Your task to perform on an android device: Go to accessibility settings Image 0: 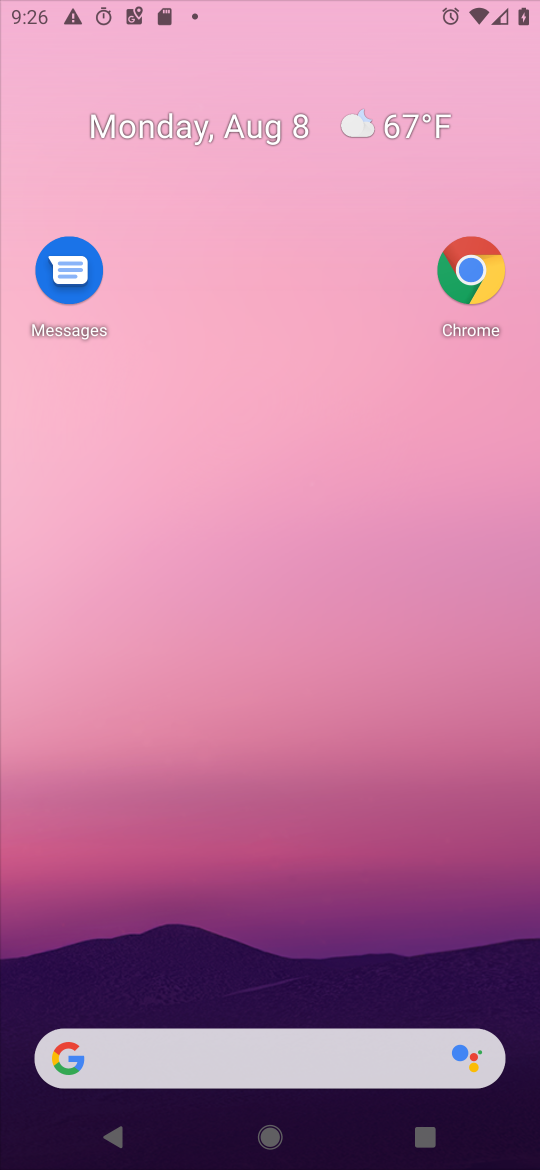
Step 0: drag from (329, 651) to (329, 227)
Your task to perform on an android device: Go to accessibility settings Image 1: 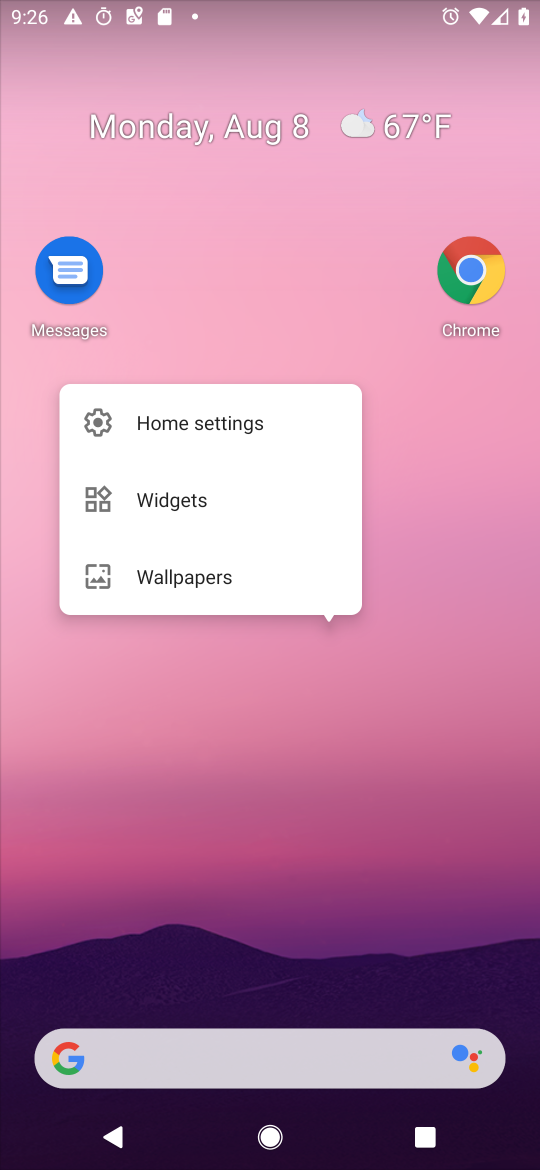
Step 1: drag from (191, 474) to (467, 1165)
Your task to perform on an android device: Go to accessibility settings Image 2: 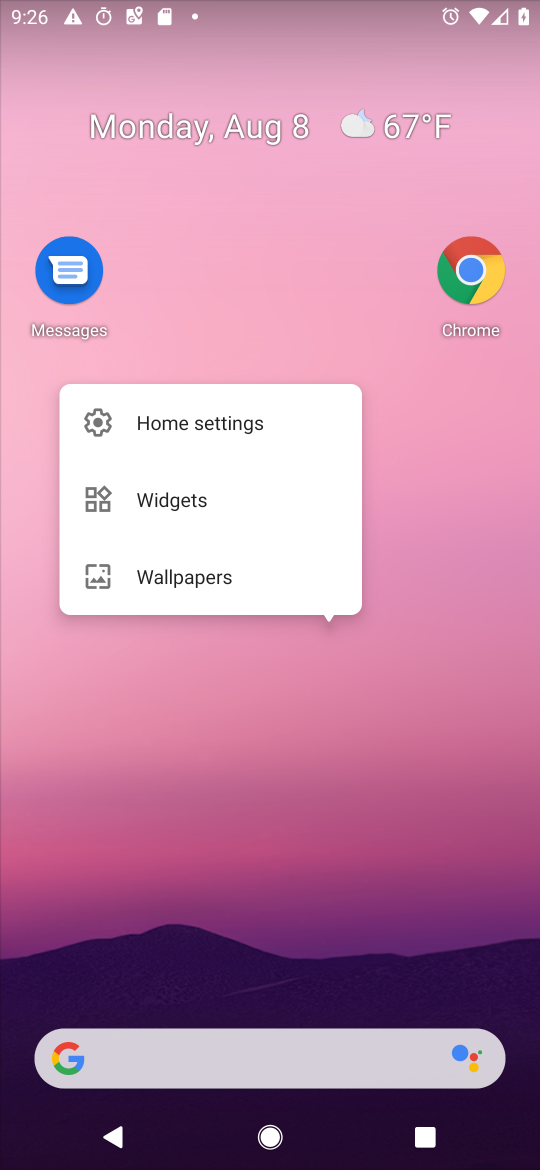
Step 2: drag from (281, 891) to (268, 270)
Your task to perform on an android device: Go to accessibility settings Image 3: 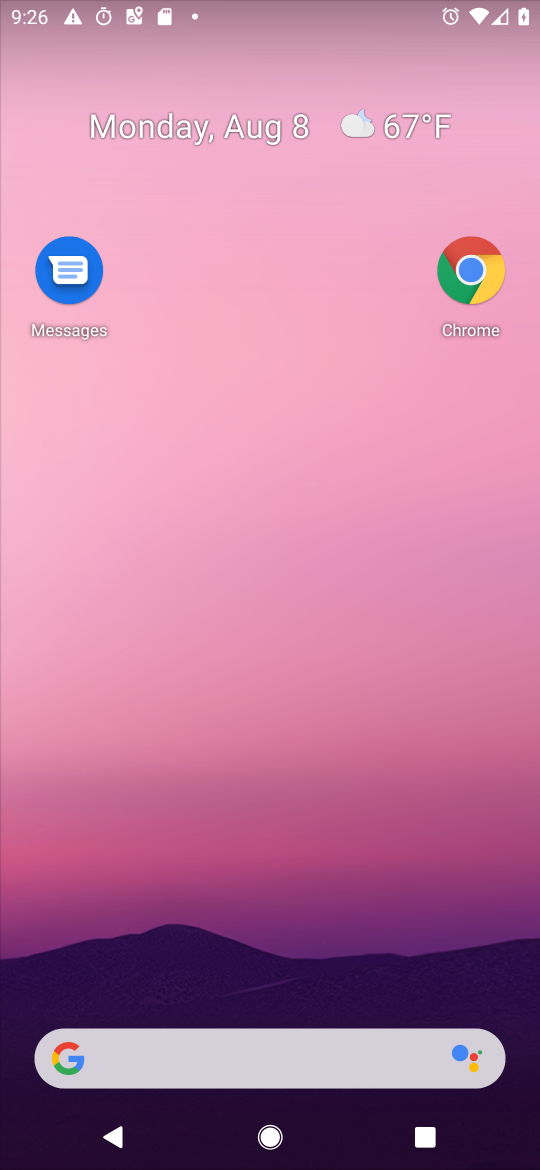
Step 3: drag from (252, 976) to (342, 59)
Your task to perform on an android device: Go to accessibility settings Image 4: 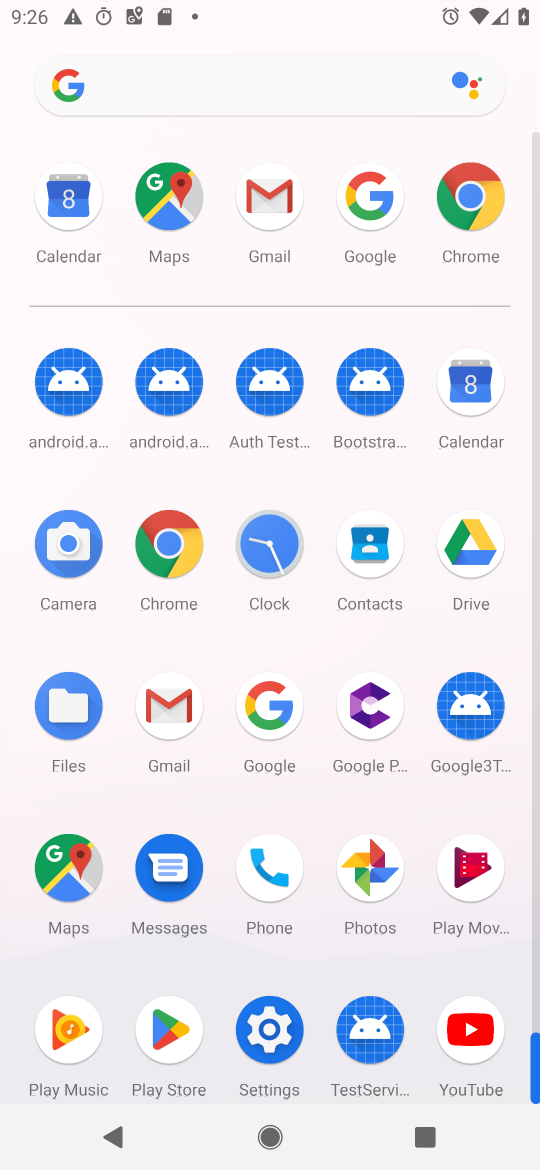
Step 4: drag from (320, 998) to (332, 552)
Your task to perform on an android device: Go to accessibility settings Image 5: 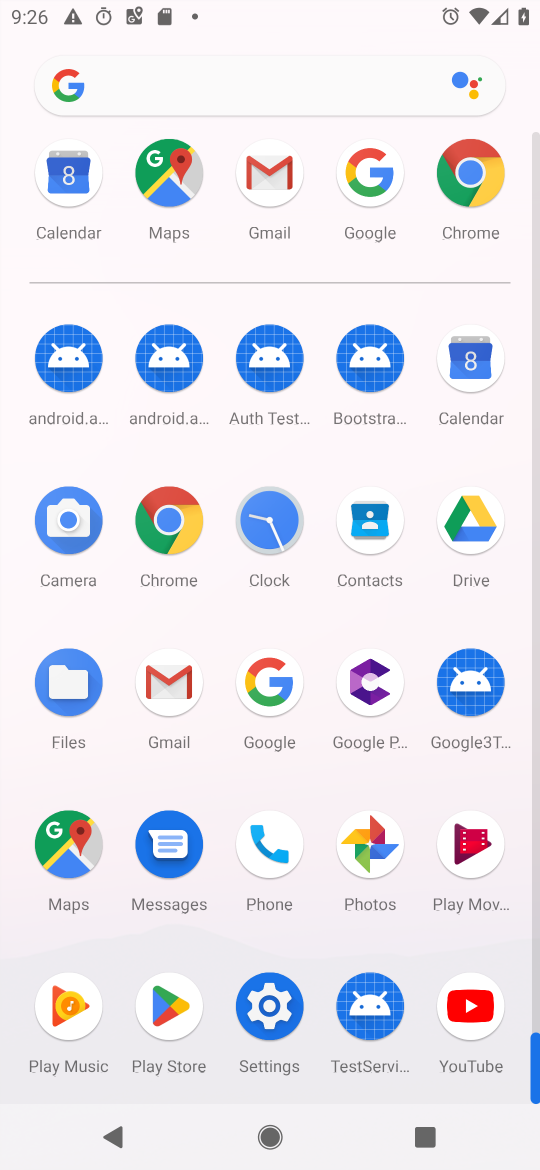
Step 5: click (251, 967)
Your task to perform on an android device: Go to accessibility settings Image 6: 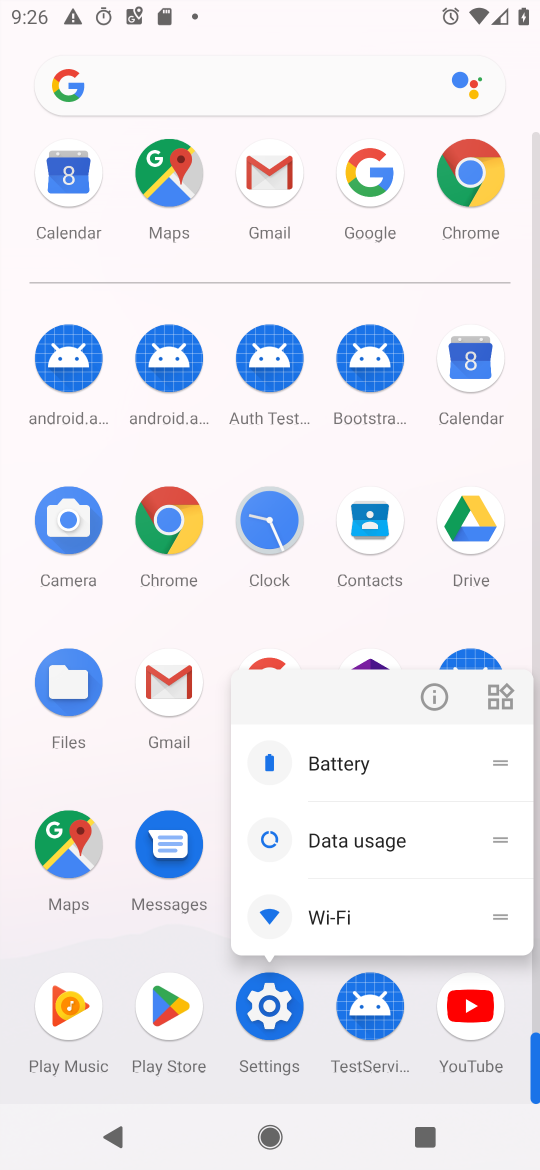
Step 6: click (443, 681)
Your task to perform on an android device: Go to accessibility settings Image 7: 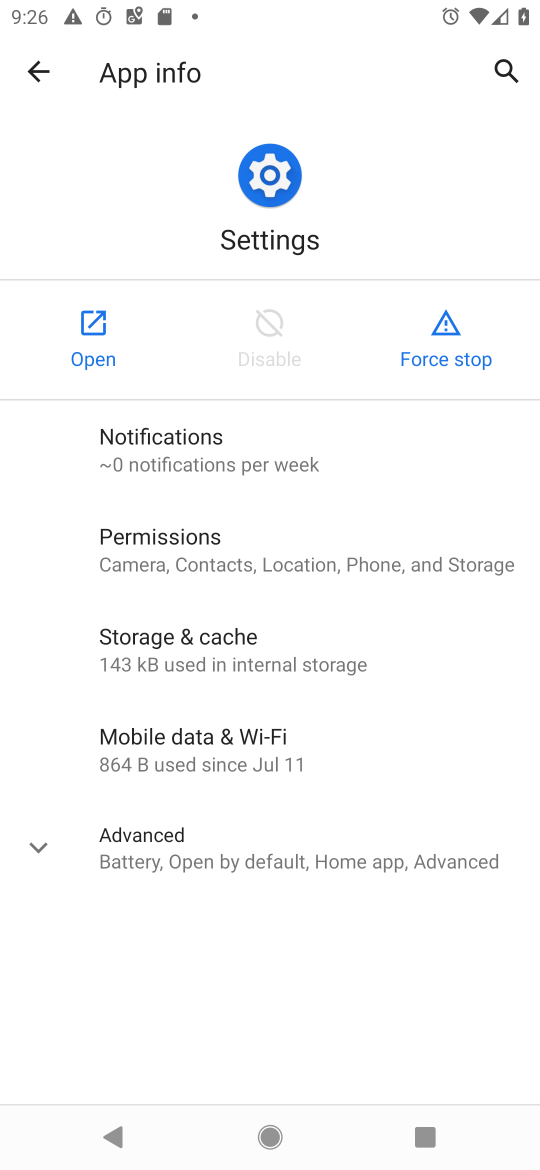
Step 7: click (81, 335)
Your task to perform on an android device: Go to accessibility settings Image 8: 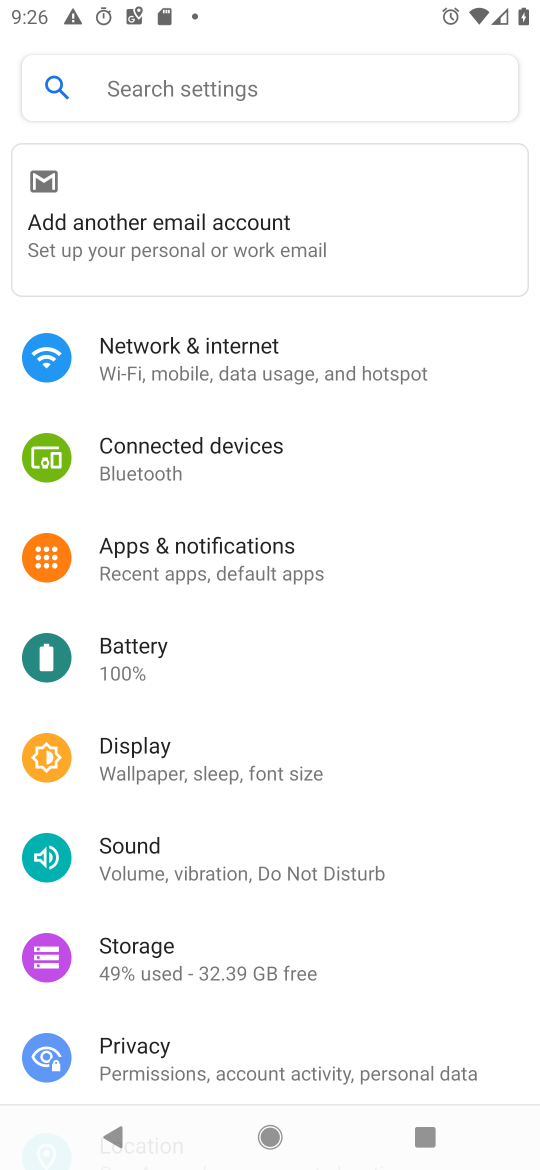
Step 8: drag from (190, 926) to (212, 297)
Your task to perform on an android device: Go to accessibility settings Image 9: 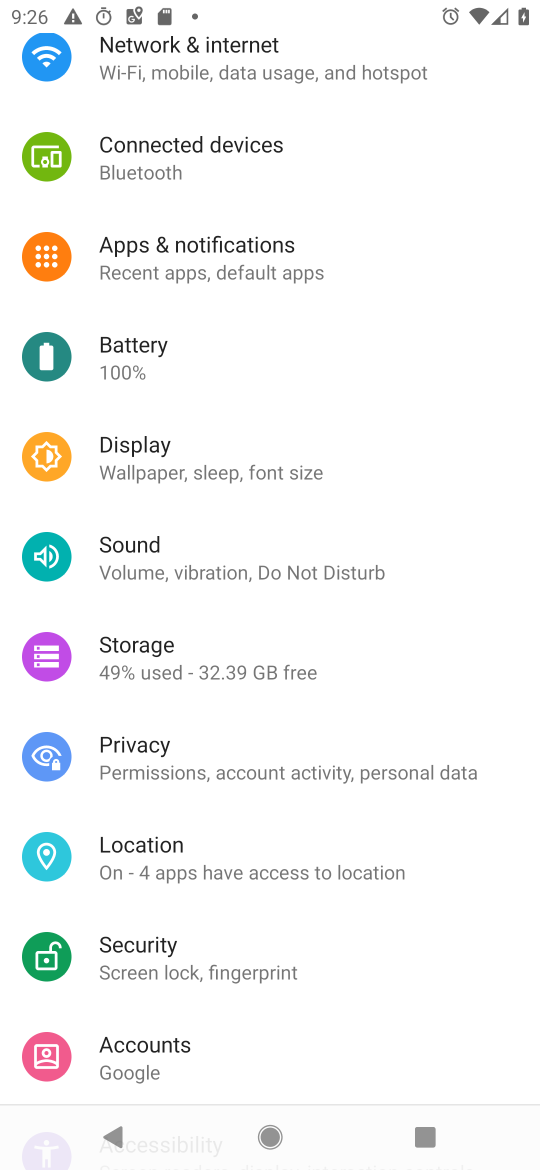
Step 9: drag from (322, 909) to (317, 293)
Your task to perform on an android device: Go to accessibility settings Image 10: 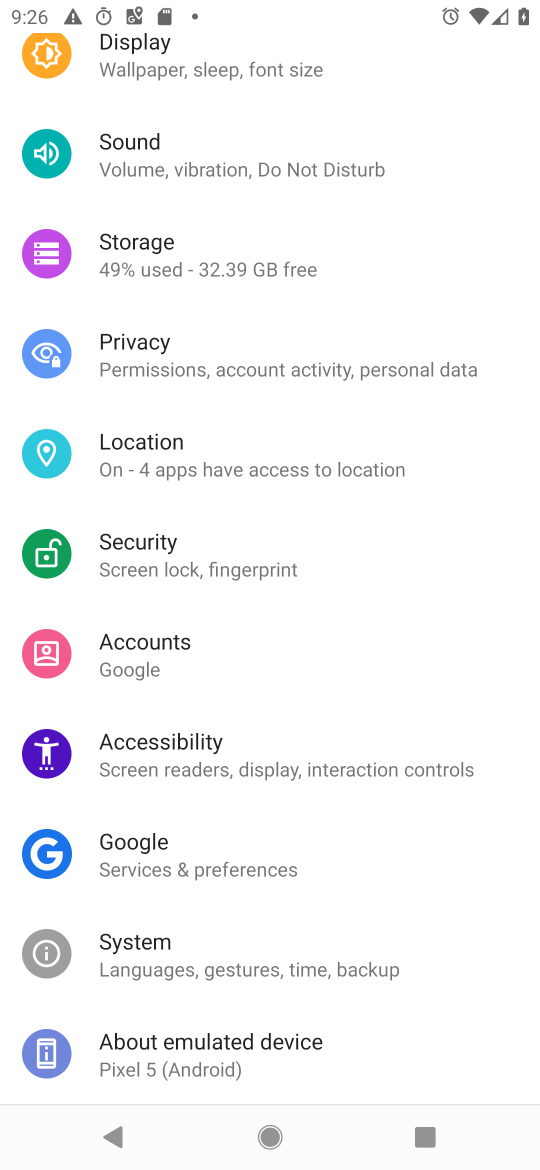
Step 10: click (177, 752)
Your task to perform on an android device: Go to accessibility settings Image 11: 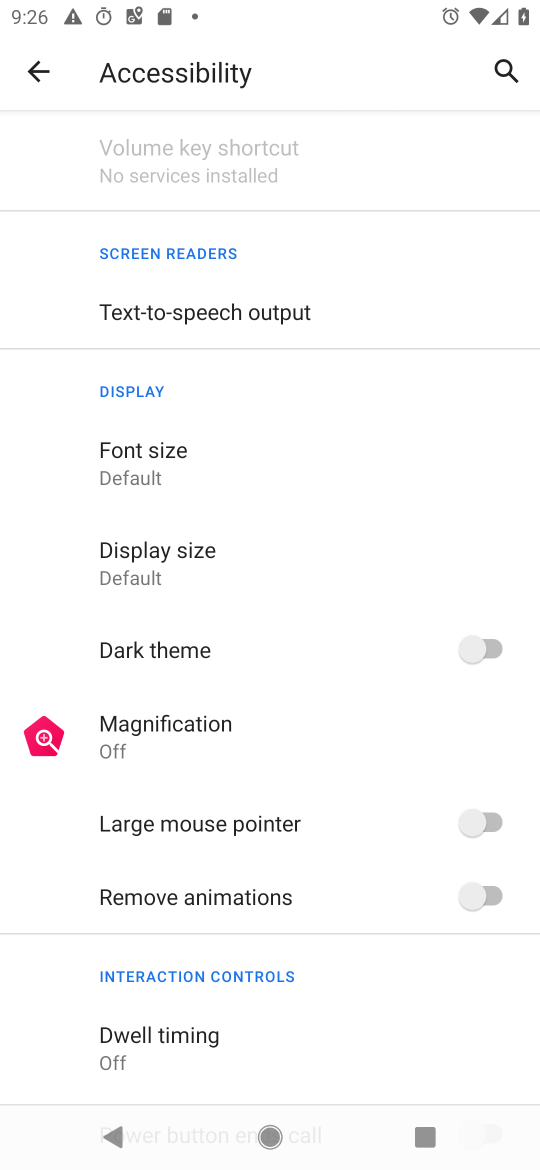
Step 11: task complete